Your task to perform on an android device: find which apps use the phone's location Image 0: 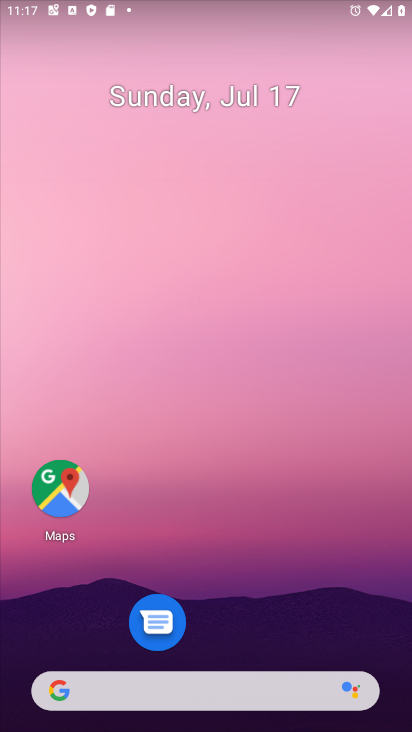
Step 0: click (165, 231)
Your task to perform on an android device: find which apps use the phone's location Image 1: 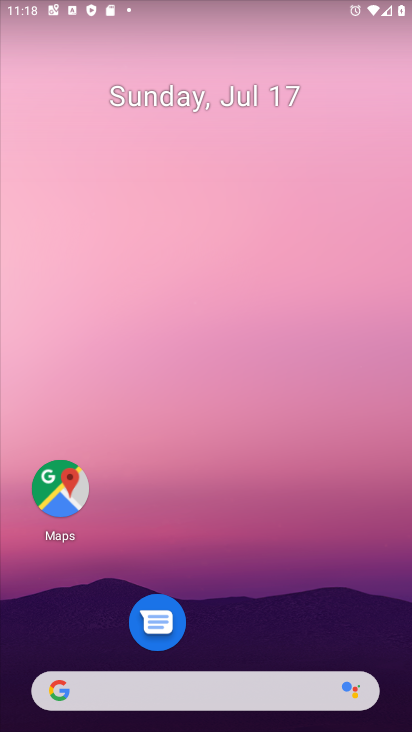
Step 1: drag from (126, 730) to (152, 5)
Your task to perform on an android device: find which apps use the phone's location Image 2: 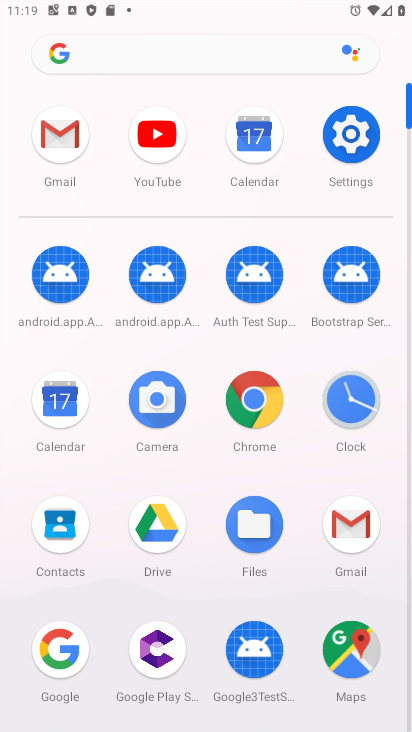
Step 2: click (334, 127)
Your task to perform on an android device: find which apps use the phone's location Image 3: 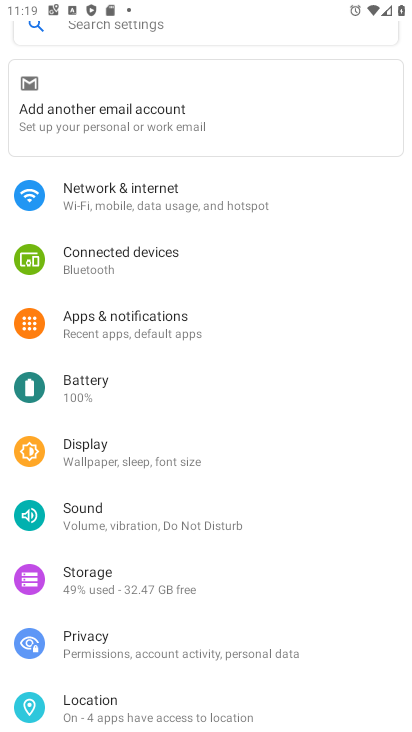
Step 3: click (171, 712)
Your task to perform on an android device: find which apps use the phone's location Image 4: 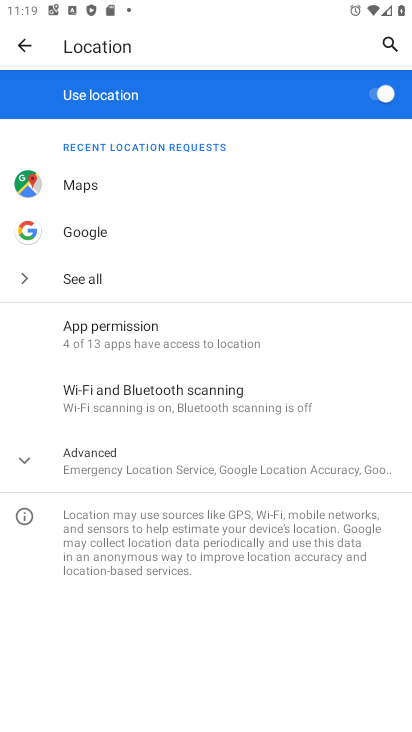
Step 4: click (299, 458)
Your task to perform on an android device: find which apps use the phone's location Image 5: 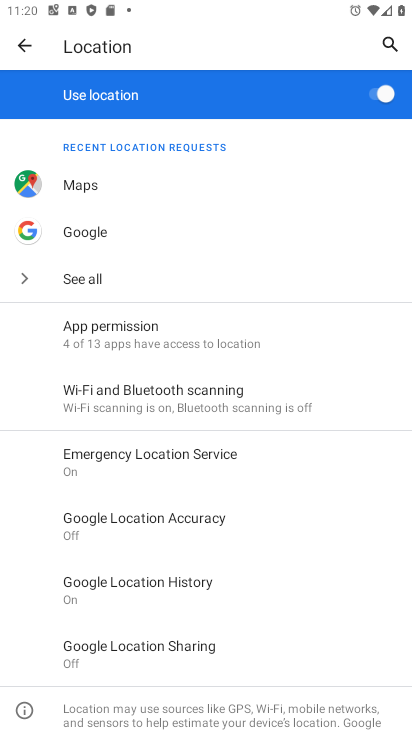
Step 5: click (162, 337)
Your task to perform on an android device: find which apps use the phone's location Image 6: 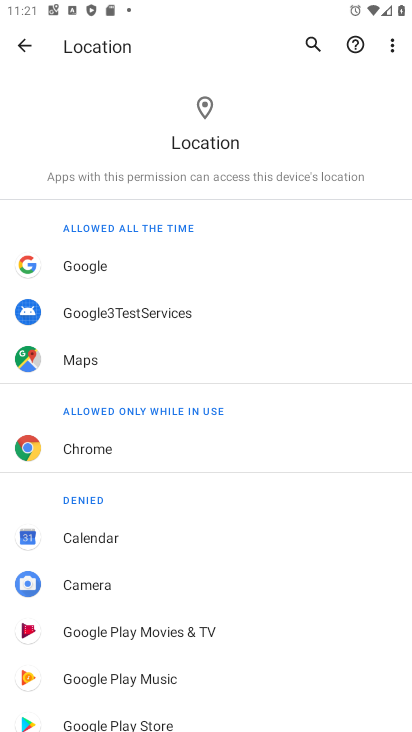
Step 6: task complete